Your task to perform on an android device: Open the calendar and show me this week's events? Image 0: 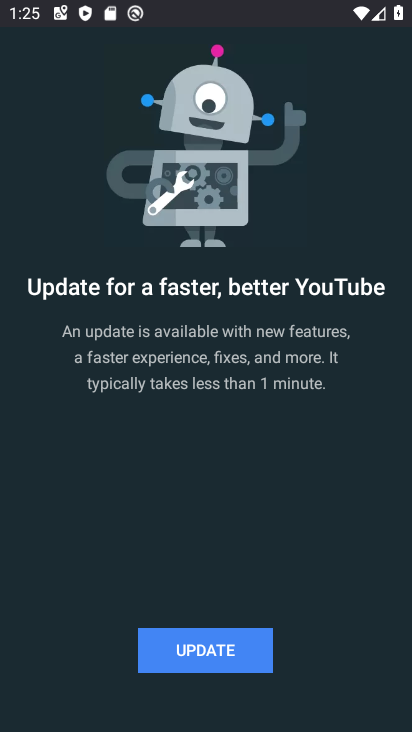
Step 0: press home button
Your task to perform on an android device: Open the calendar and show me this week's events? Image 1: 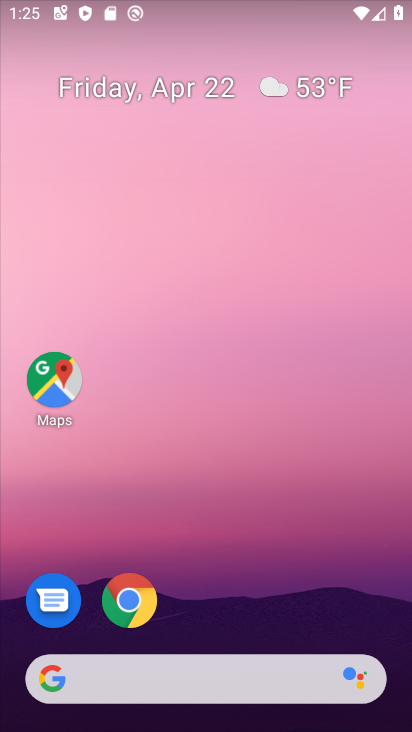
Step 1: drag from (243, 721) to (246, 135)
Your task to perform on an android device: Open the calendar and show me this week's events? Image 2: 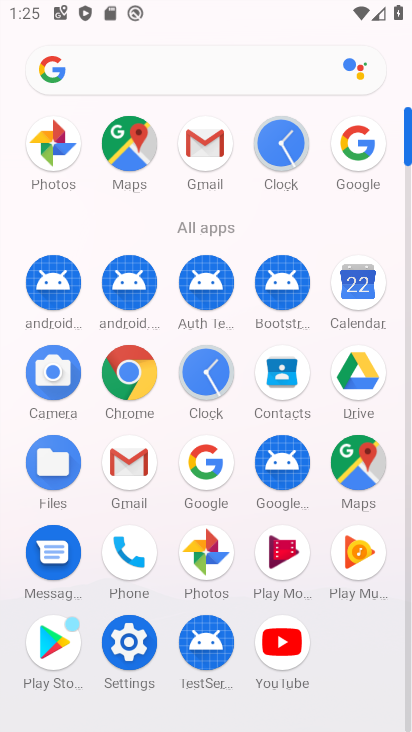
Step 2: click (367, 282)
Your task to perform on an android device: Open the calendar and show me this week's events? Image 3: 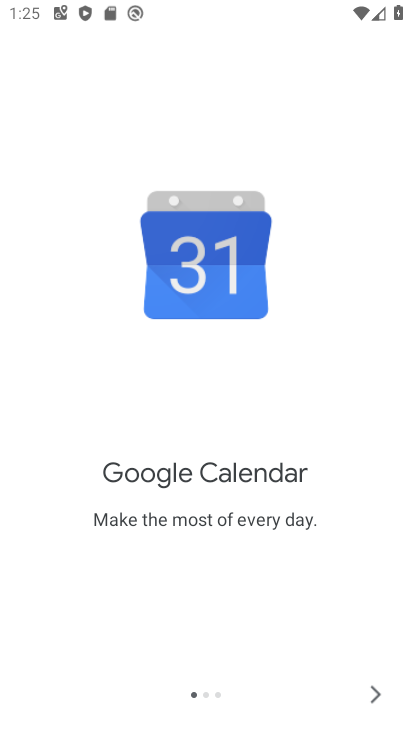
Step 3: click (373, 692)
Your task to perform on an android device: Open the calendar and show me this week's events? Image 4: 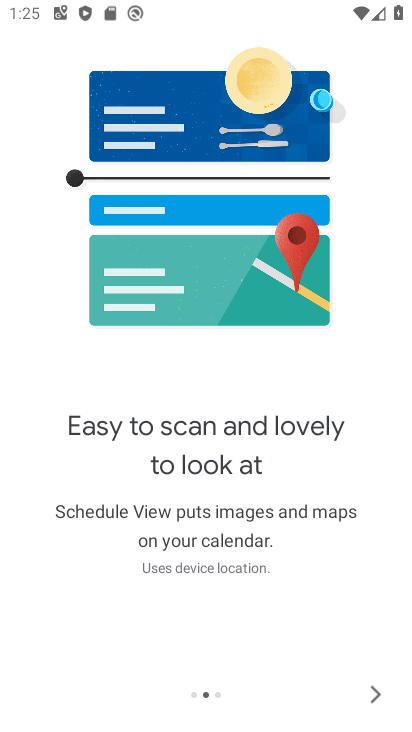
Step 4: click (373, 694)
Your task to perform on an android device: Open the calendar and show me this week's events? Image 5: 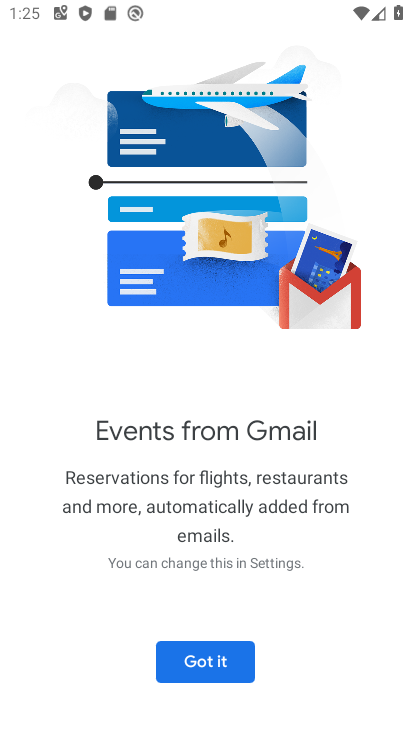
Step 5: click (214, 665)
Your task to perform on an android device: Open the calendar and show me this week's events? Image 6: 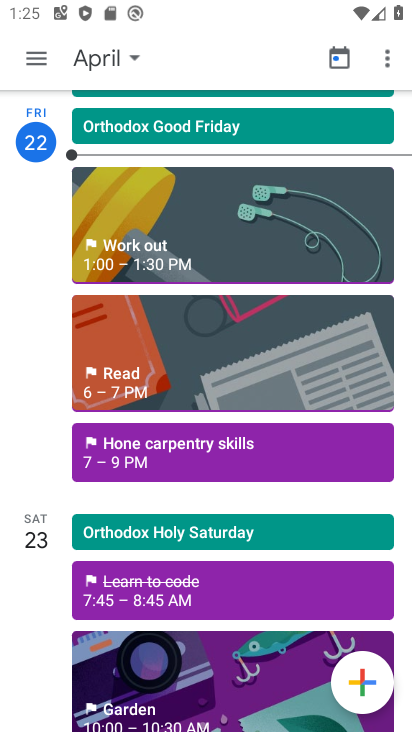
Step 6: click (39, 56)
Your task to perform on an android device: Open the calendar and show me this week's events? Image 7: 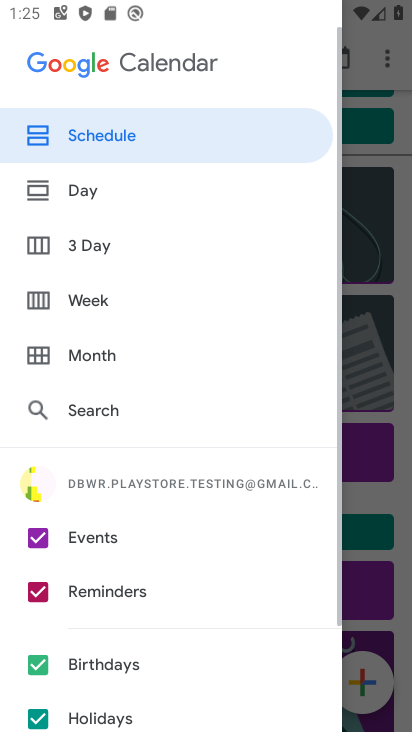
Step 7: click (34, 586)
Your task to perform on an android device: Open the calendar and show me this week's events? Image 8: 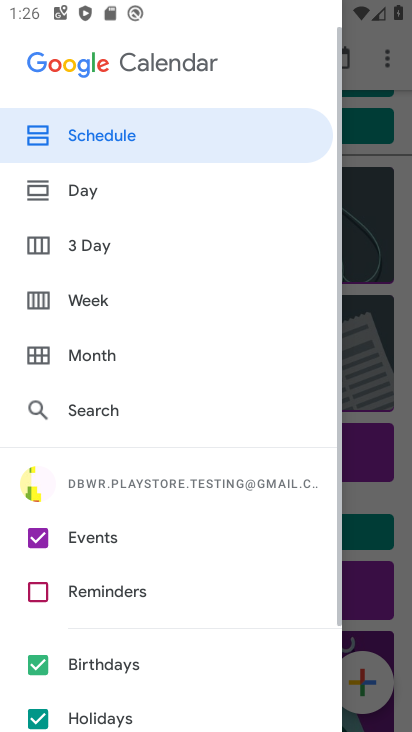
Step 8: click (38, 665)
Your task to perform on an android device: Open the calendar and show me this week's events? Image 9: 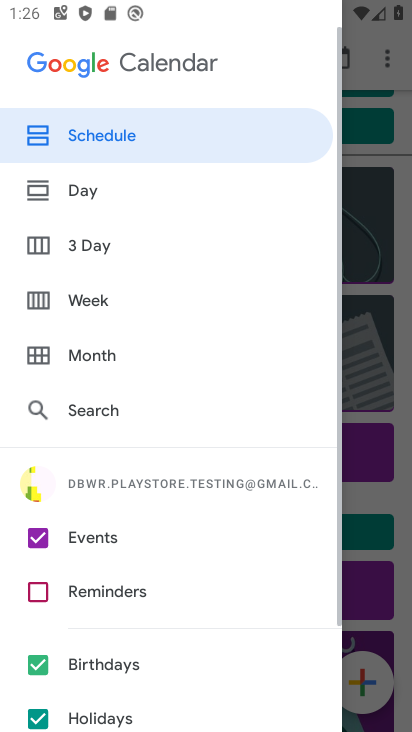
Step 9: click (35, 663)
Your task to perform on an android device: Open the calendar and show me this week's events? Image 10: 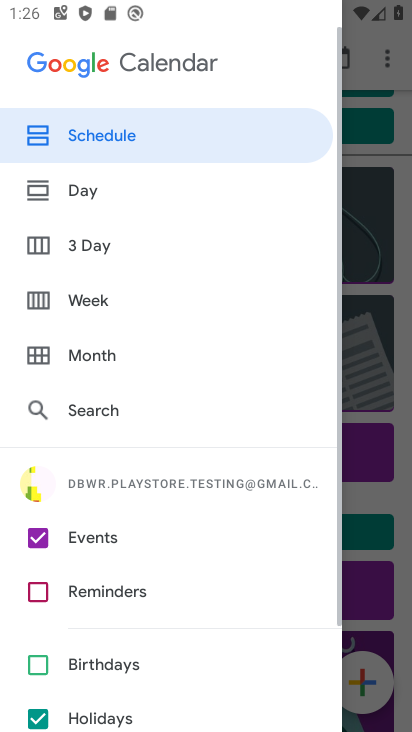
Step 10: click (39, 714)
Your task to perform on an android device: Open the calendar and show me this week's events? Image 11: 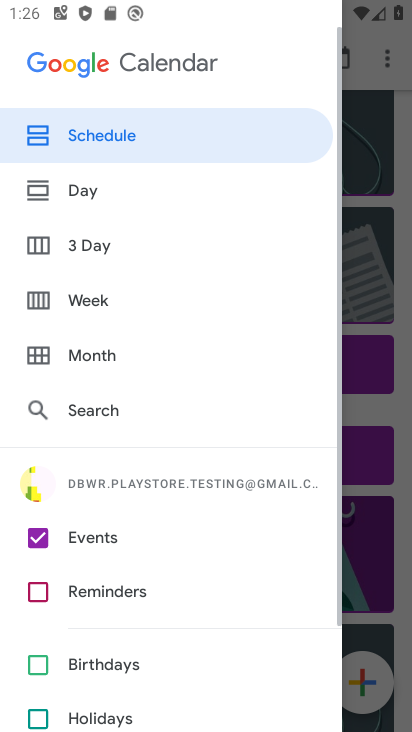
Step 11: click (36, 295)
Your task to perform on an android device: Open the calendar and show me this week's events? Image 12: 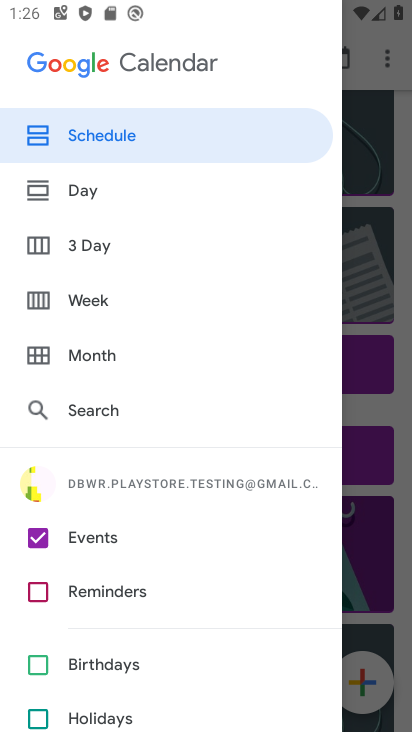
Step 12: click (80, 298)
Your task to perform on an android device: Open the calendar and show me this week's events? Image 13: 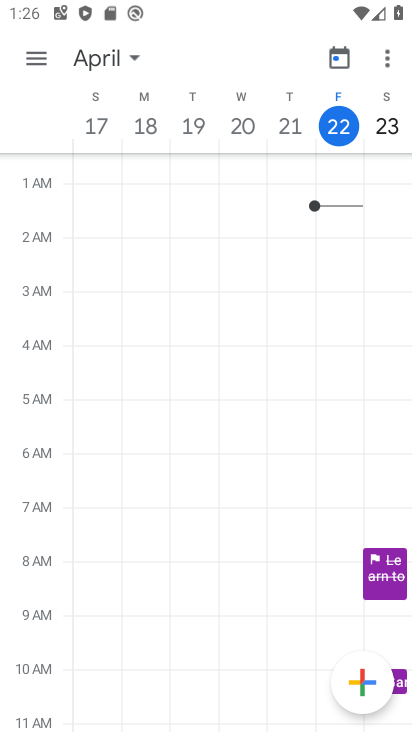
Step 13: task complete